Your task to perform on an android device: Open Amazon Image 0: 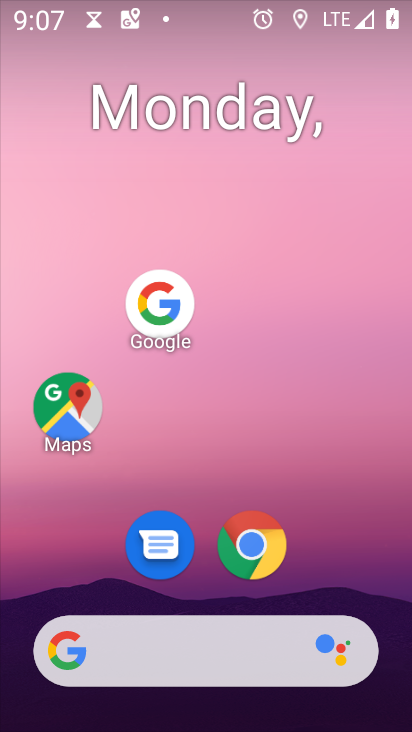
Step 0: press home button
Your task to perform on an android device: Open Amazon Image 1: 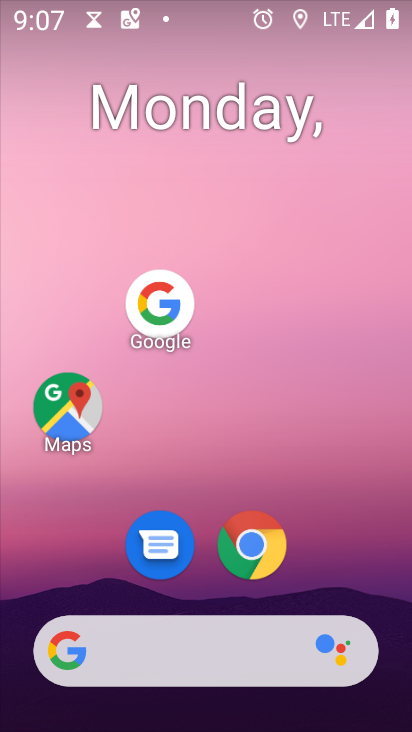
Step 1: click (240, 554)
Your task to perform on an android device: Open Amazon Image 2: 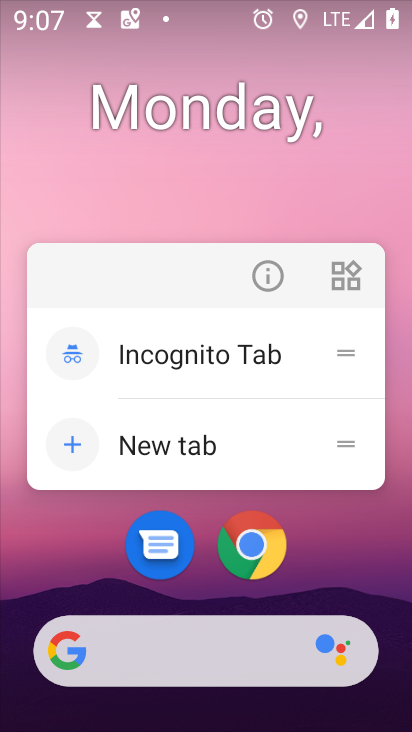
Step 2: click (267, 532)
Your task to perform on an android device: Open Amazon Image 3: 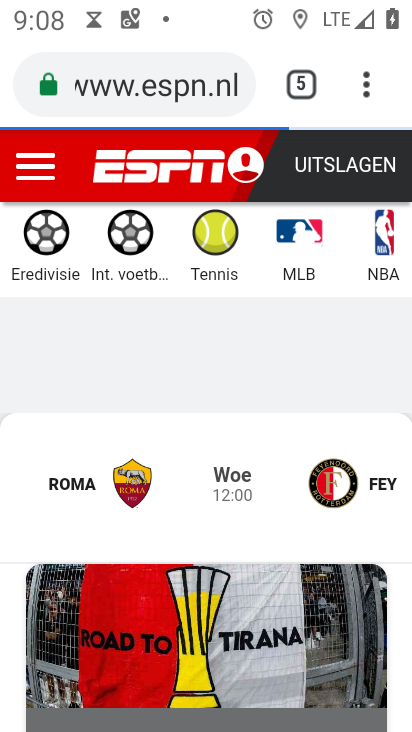
Step 3: drag from (373, 80) to (203, 161)
Your task to perform on an android device: Open Amazon Image 4: 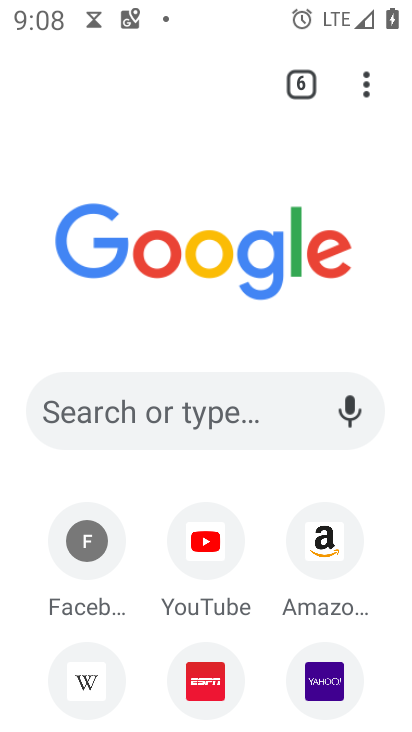
Step 4: click (330, 558)
Your task to perform on an android device: Open Amazon Image 5: 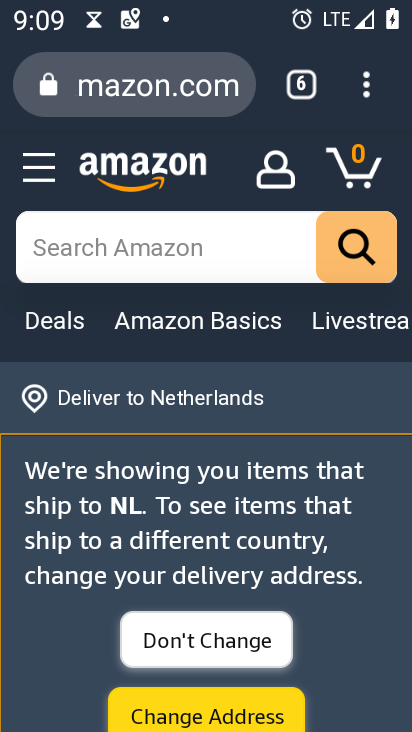
Step 5: task complete